Your task to perform on an android device: Open Android settings Image 0: 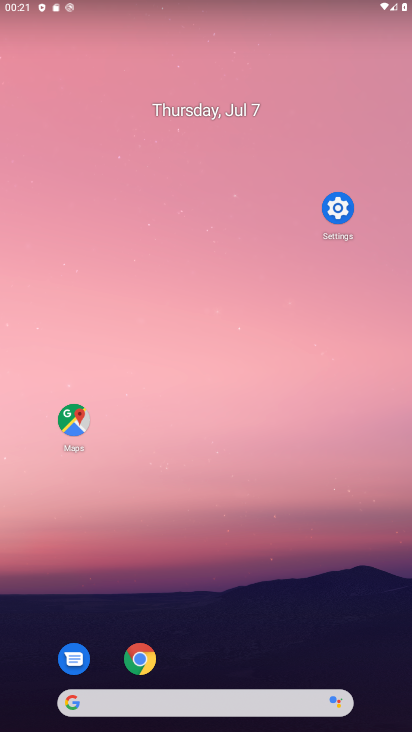
Step 0: press back button
Your task to perform on an android device: Open Android settings Image 1: 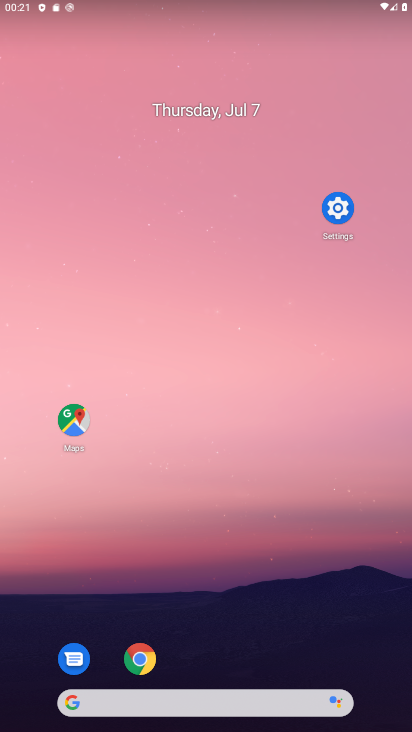
Step 1: press back button
Your task to perform on an android device: Open Android settings Image 2: 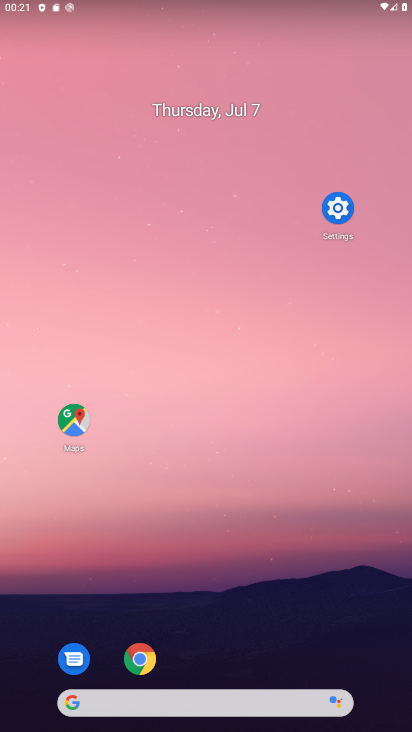
Step 2: press back button
Your task to perform on an android device: Open Android settings Image 3: 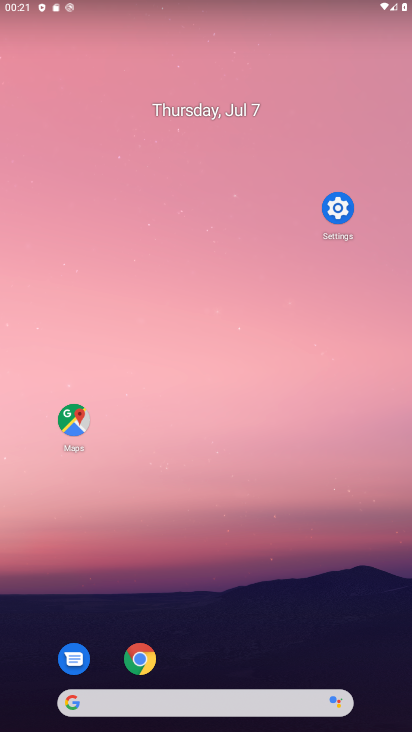
Step 3: drag from (251, 600) to (368, 22)
Your task to perform on an android device: Open Android settings Image 4: 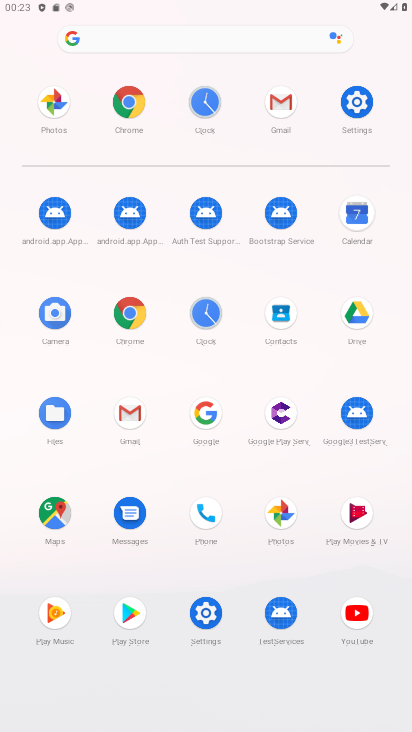
Step 4: click (362, 103)
Your task to perform on an android device: Open Android settings Image 5: 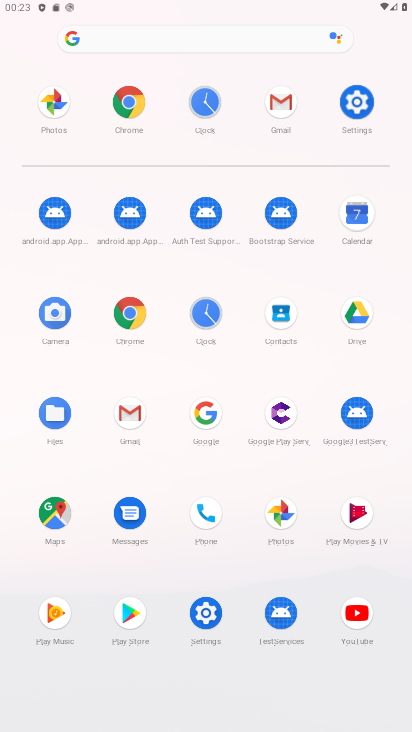
Step 5: click (363, 103)
Your task to perform on an android device: Open Android settings Image 6: 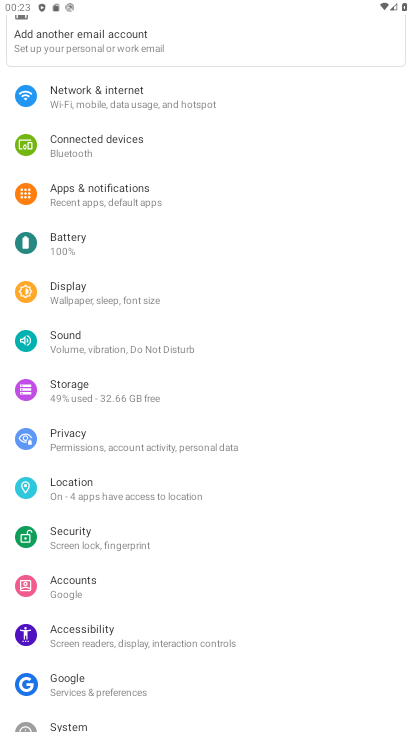
Step 6: drag from (114, 613) to (109, 220)
Your task to perform on an android device: Open Android settings Image 7: 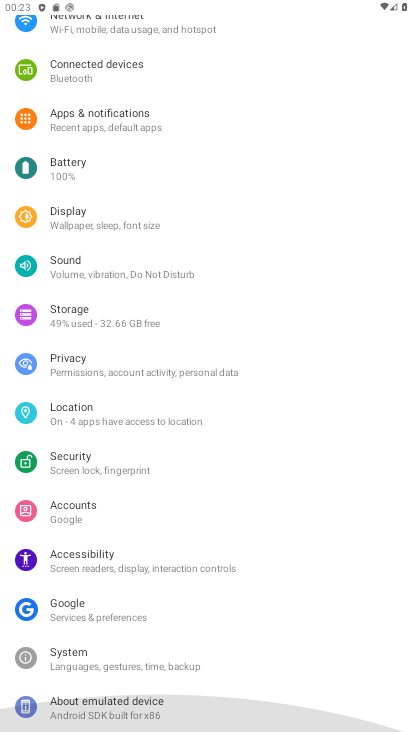
Step 7: drag from (161, 444) to (185, 175)
Your task to perform on an android device: Open Android settings Image 8: 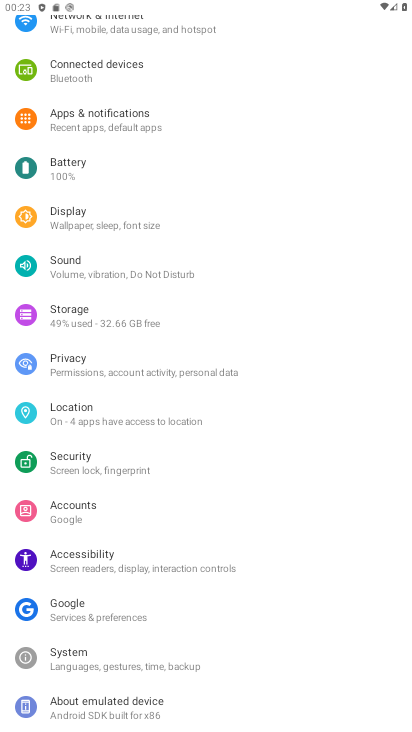
Step 8: drag from (222, 490) to (164, 286)
Your task to perform on an android device: Open Android settings Image 9: 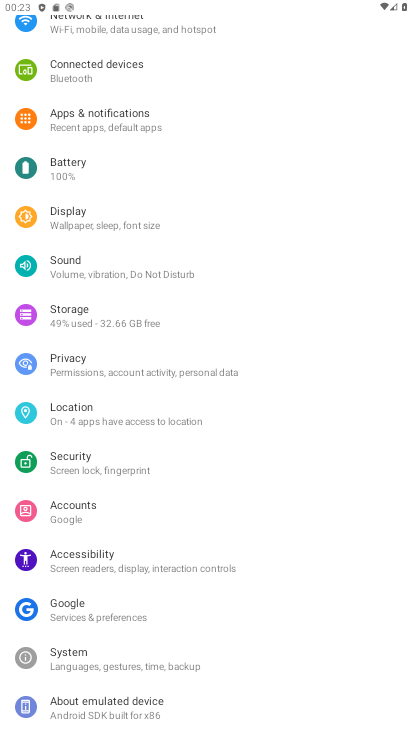
Step 9: drag from (123, 359) to (116, 264)
Your task to perform on an android device: Open Android settings Image 10: 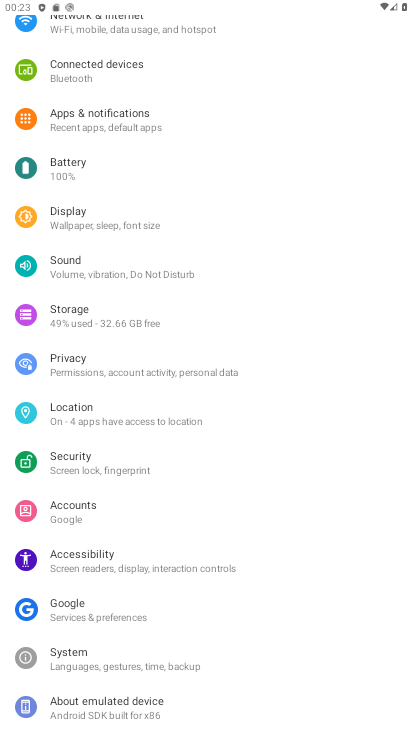
Step 10: click (87, 704)
Your task to perform on an android device: Open Android settings Image 11: 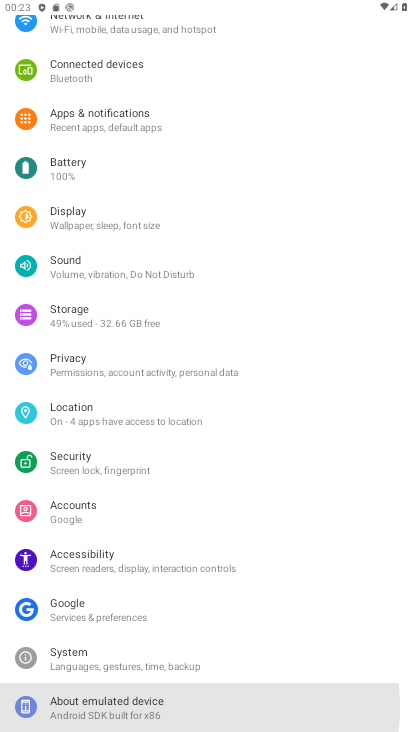
Step 11: click (87, 704)
Your task to perform on an android device: Open Android settings Image 12: 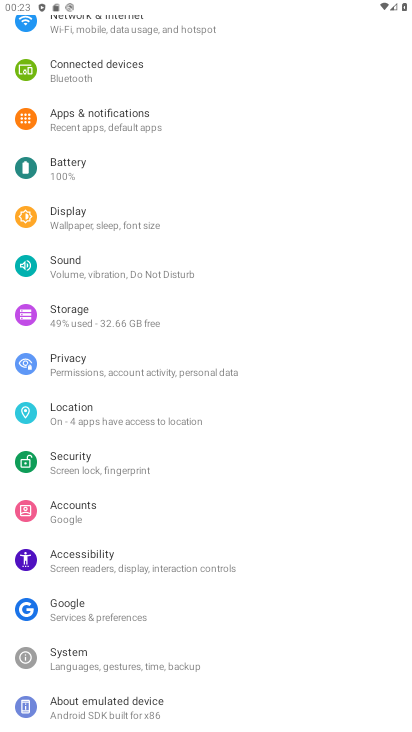
Step 12: click (87, 704)
Your task to perform on an android device: Open Android settings Image 13: 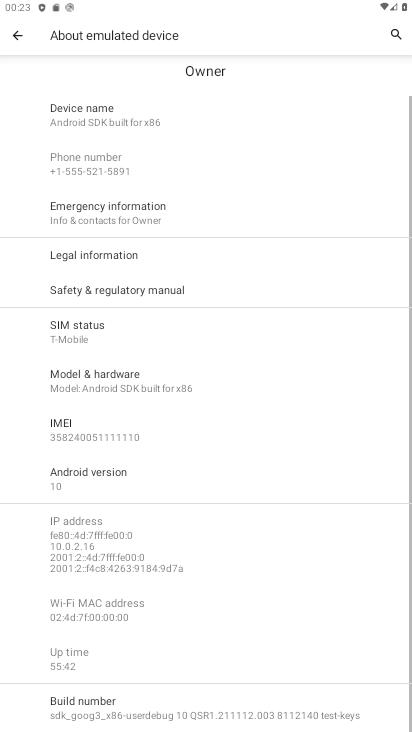
Step 13: task complete